Your task to perform on an android device: Open Yahoo.com Image 0: 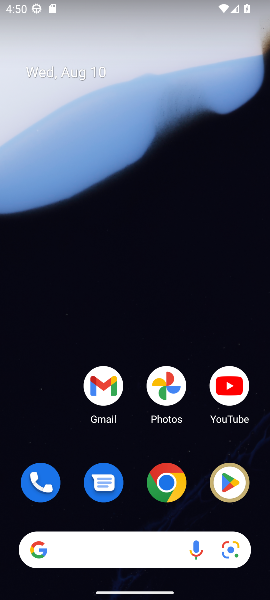
Step 0: click (90, 552)
Your task to perform on an android device: Open Yahoo.com Image 1: 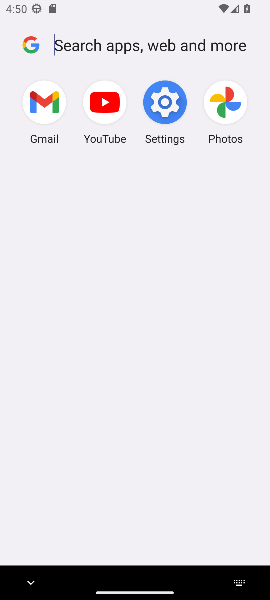
Step 1: click (30, 48)
Your task to perform on an android device: Open Yahoo.com Image 2: 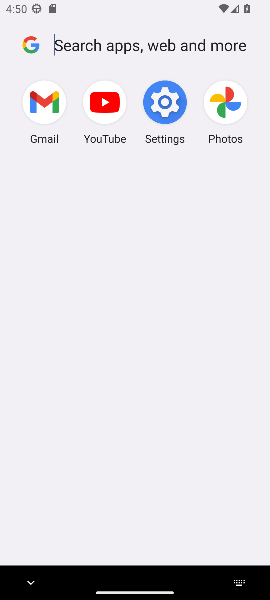
Step 2: press home button
Your task to perform on an android device: Open Yahoo.com Image 3: 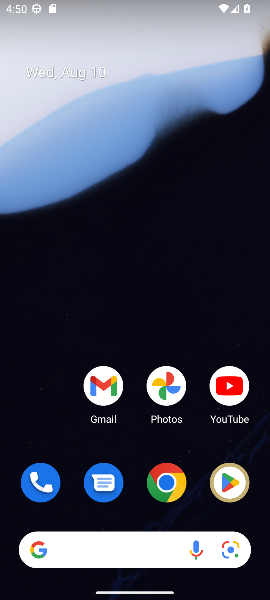
Step 3: drag from (57, 423) to (97, 52)
Your task to perform on an android device: Open Yahoo.com Image 4: 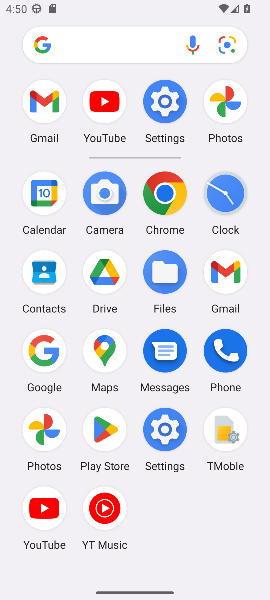
Step 4: click (46, 345)
Your task to perform on an android device: Open Yahoo.com Image 5: 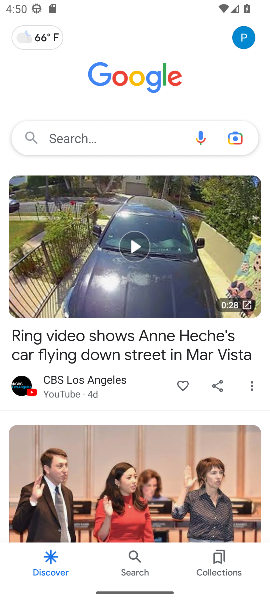
Step 5: click (123, 132)
Your task to perform on an android device: Open Yahoo.com Image 6: 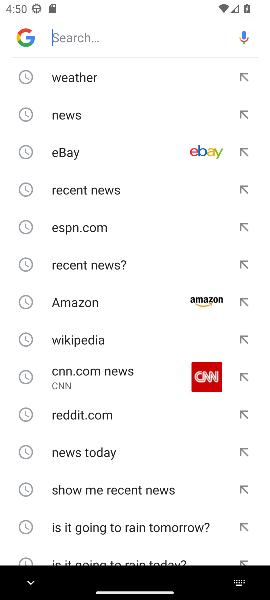
Step 6: type "yahoo.com"
Your task to perform on an android device: Open Yahoo.com Image 7: 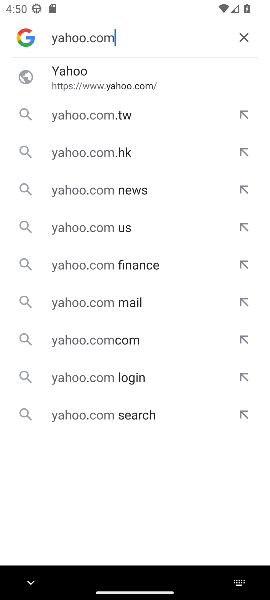
Step 7: click (140, 84)
Your task to perform on an android device: Open Yahoo.com Image 8: 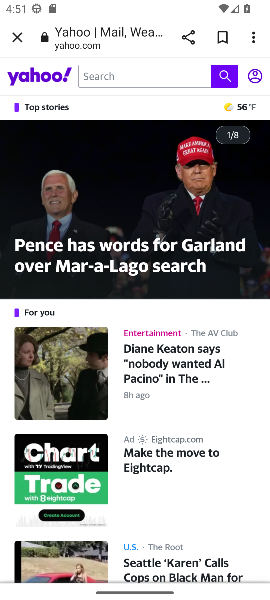
Step 8: task complete